Your task to perform on an android device: change alarm snooze length Image 0: 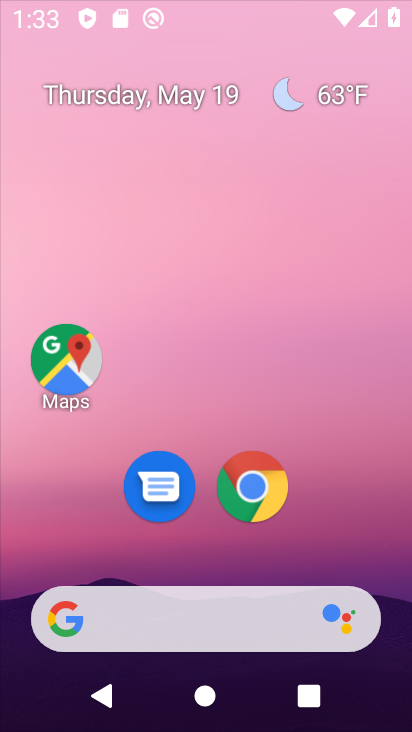
Step 0: drag from (324, 423) to (260, 45)
Your task to perform on an android device: change alarm snooze length Image 1: 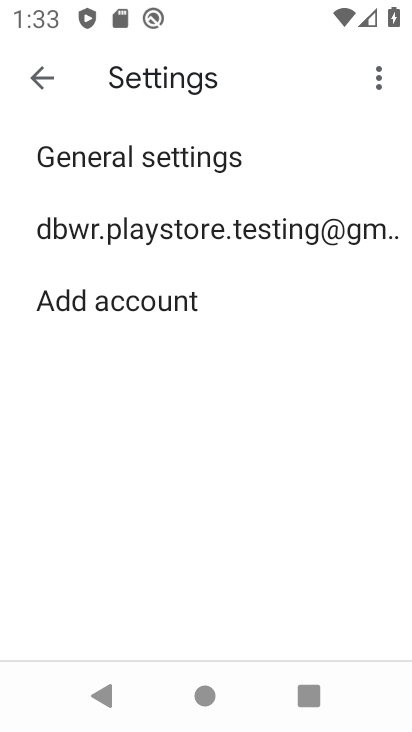
Step 1: press home button
Your task to perform on an android device: change alarm snooze length Image 2: 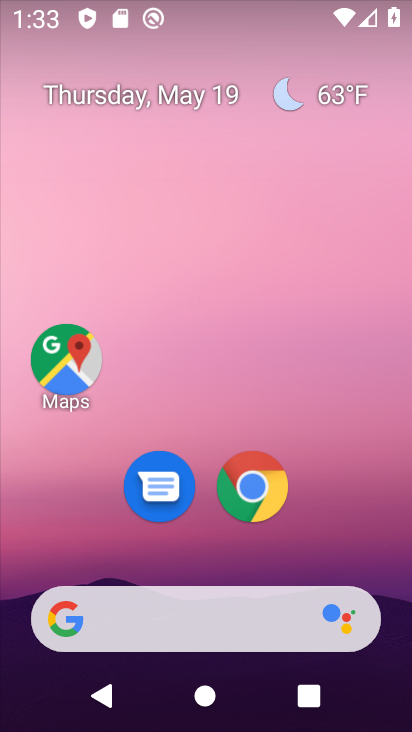
Step 2: drag from (334, 516) to (213, 60)
Your task to perform on an android device: change alarm snooze length Image 3: 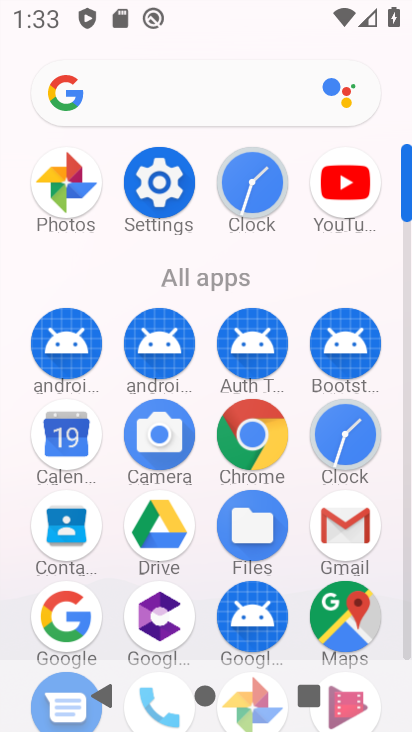
Step 3: click (250, 163)
Your task to perform on an android device: change alarm snooze length Image 4: 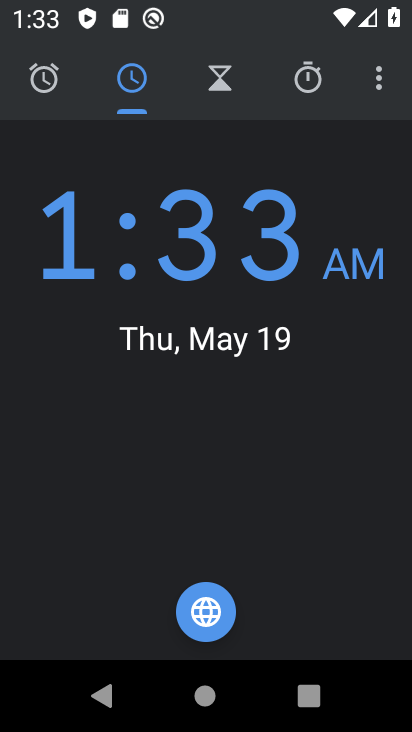
Step 4: click (375, 72)
Your task to perform on an android device: change alarm snooze length Image 5: 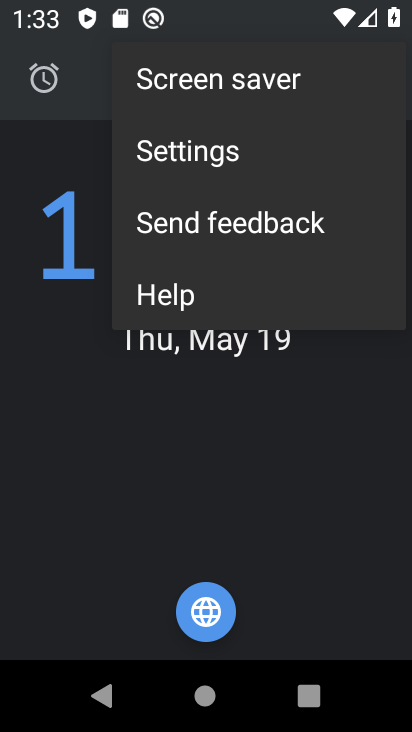
Step 5: click (207, 128)
Your task to perform on an android device: change alarm snooze length Image 6: 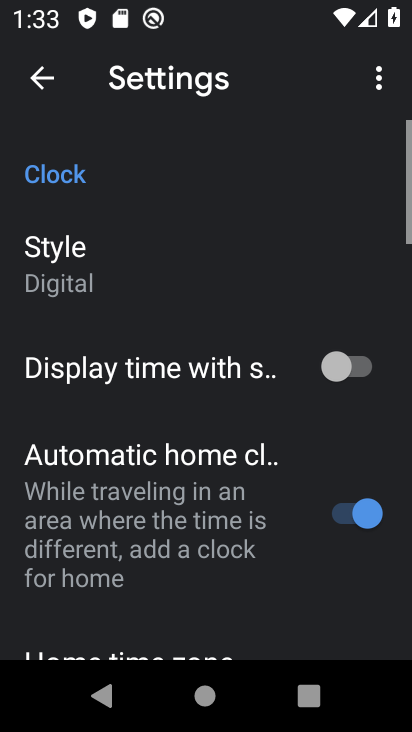
Step 6: drag from (231, 295) to (230, 0)
Your task to perform on an android device: change alarm snooze length Image 7: 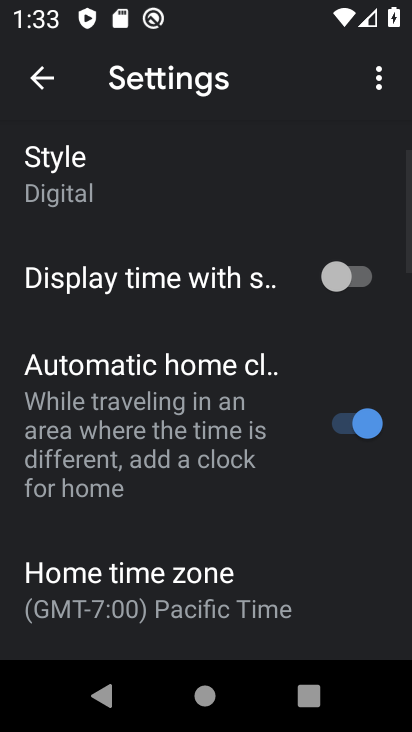
Step 7: drag from (197, 537) to (180, 176)
Your task to perform on an android device: change alarm snooze length Image 8: 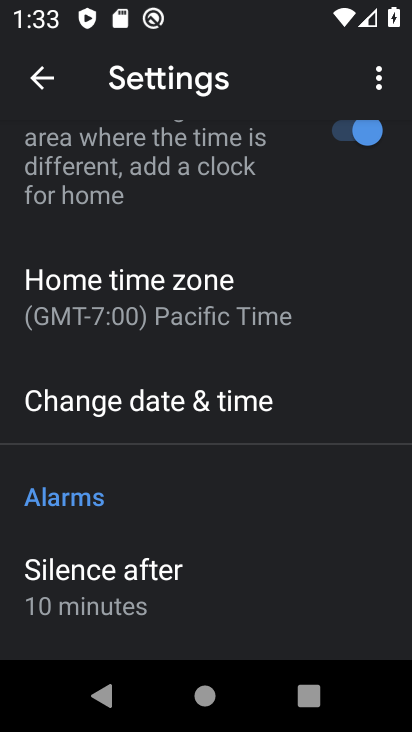
Step 8: drag from (181, 509) to (174, 191)
Your task to perform on an android device: change alarm snooze length Image 9: 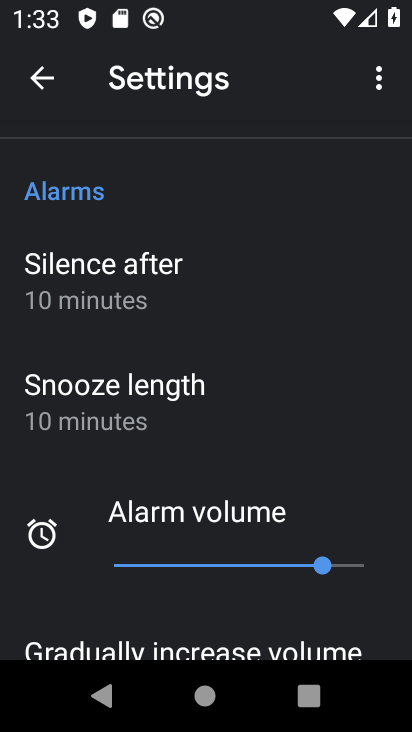
Step 9: click (152, 406)
Your task to perform on an android device: change alarm snooze length Image 10: 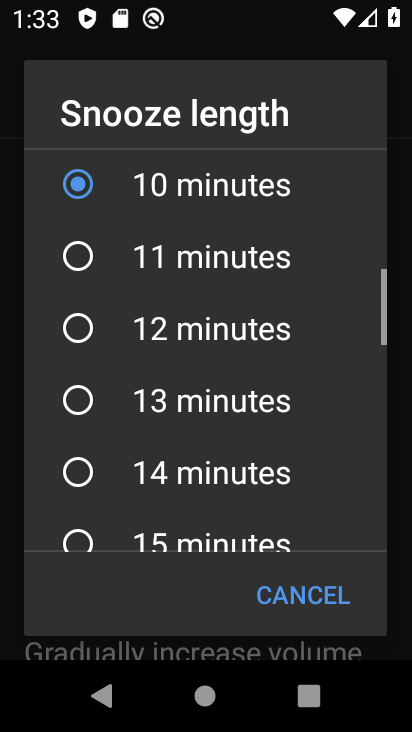
Step 10: click (219, 314)
Your task to perform on an android device: change alarm snooze length Image 11: 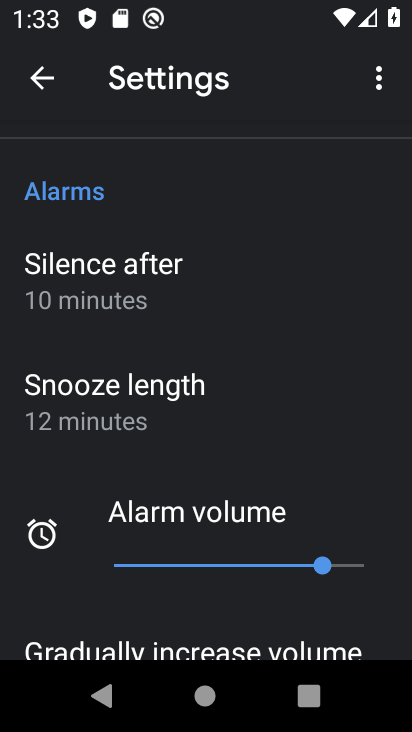
Step 11: task complete